Your task to perform on an android device: Open the stopwatch Image 0: 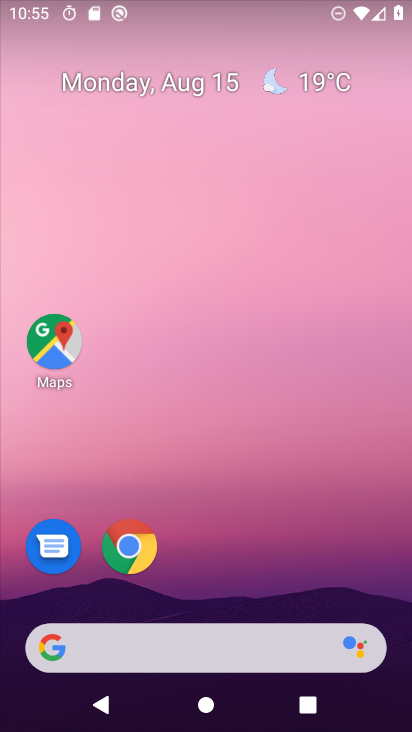
Step 0: drag from (250, 519) to (203, 130)
Your task to perform on an android device: Open the stopwatch Image 1: 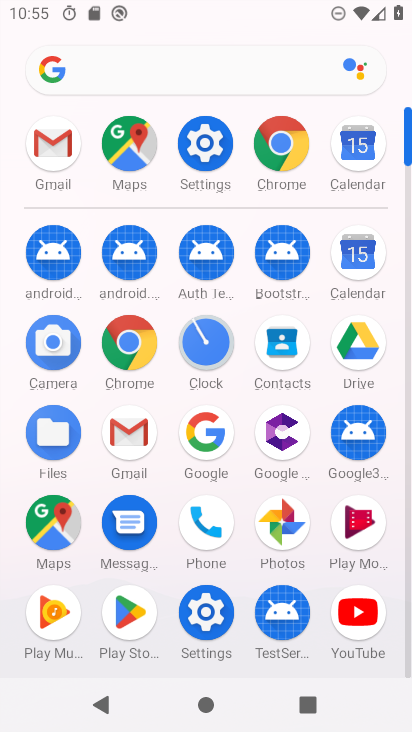
Step 1: click (210, 343)
Your task to perform on an android device: Open the stopwatch Image 2: 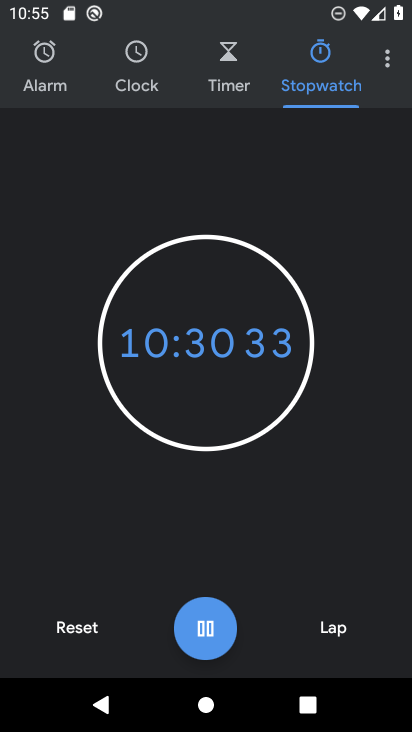
Step 2: task complete